Your task to perform on an android device: Open ESPN.com Image 0: 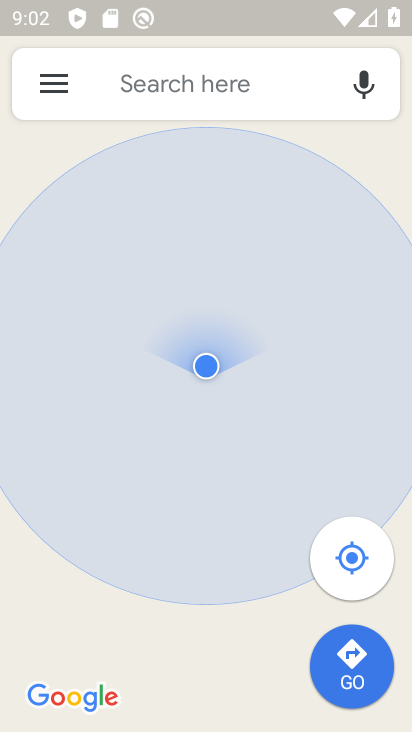
Step 0: press home button
Your task to perform on an android device: Open ESPN.com Image 1: 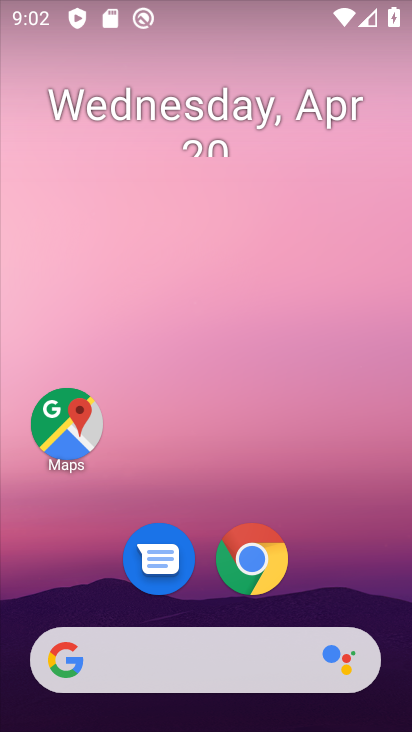
Step 1: click (223, 660)
Your task to perform on an android device: Open ESPN.com Image 2: 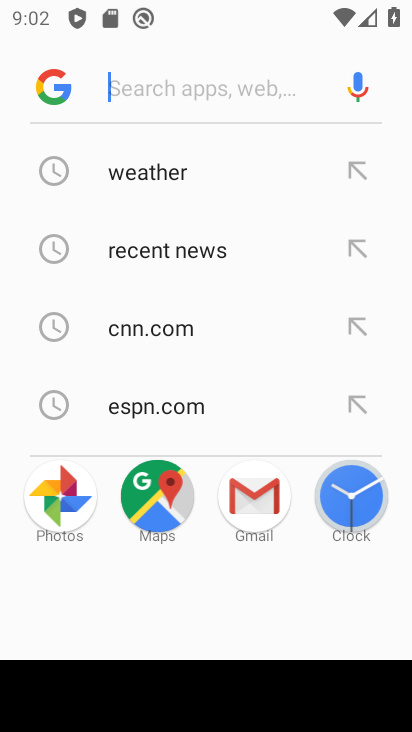
Step 2: click (184, 401)
Your task to perform on an android device: Open ESPN.com Image 3: 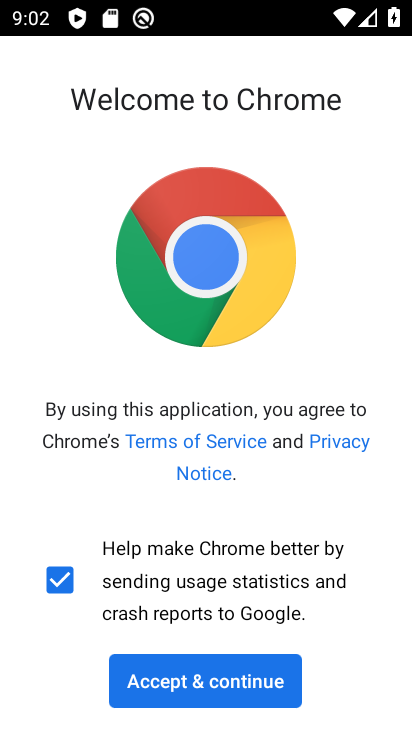
Step 3: click (273, 670)
Your task to perform on an android device: Open ESPN.com Image 4: 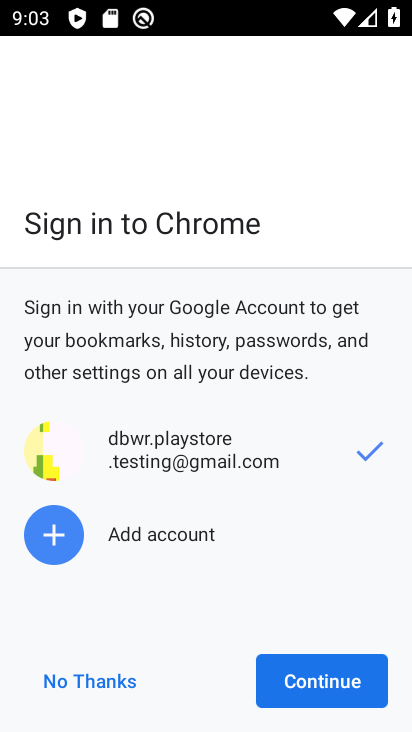
Step 4: click (331, 662)
Your task to perform on an android device: Open ESPN.com Image 5: 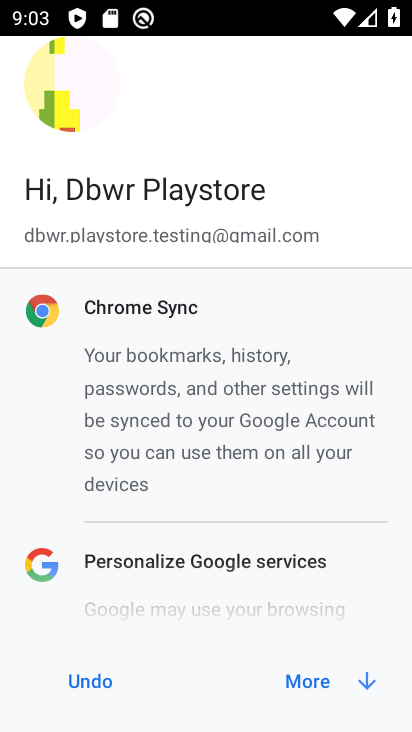
Step 5: click (306, 666)
Your task to perform on an android device: Open ESPN.com Image 6: 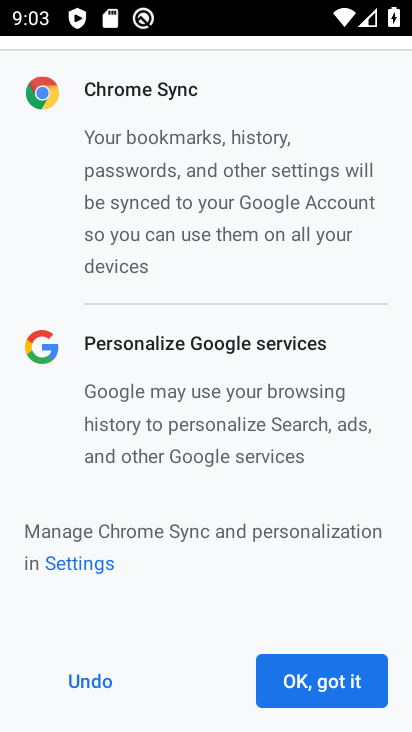
Step 6: click (305, 668)
Your task to perform on an android device: Open ESPN.com Image 7: 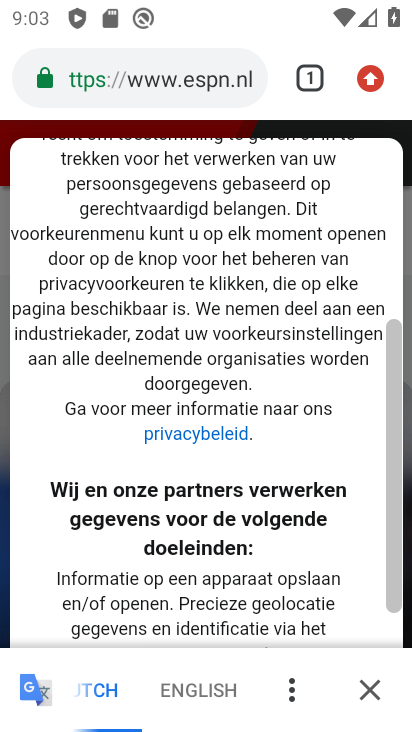
Step 7: task complete